Your task to perform on an android device: turn off airplane mode Image 0: 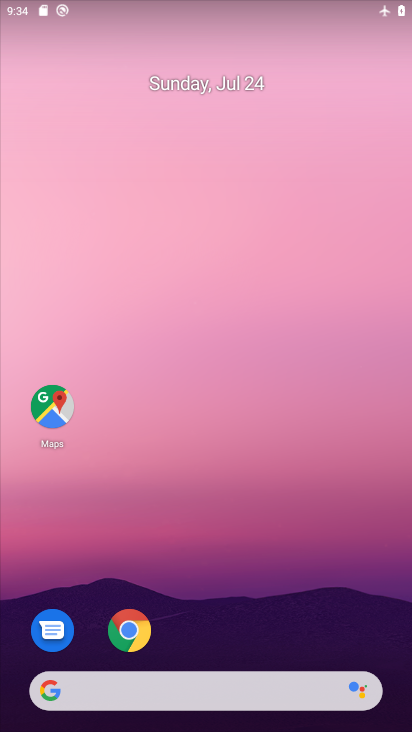
Step 0: click (241, 203)
Your task to perform on an android device: turn off airplane mode Image 1: 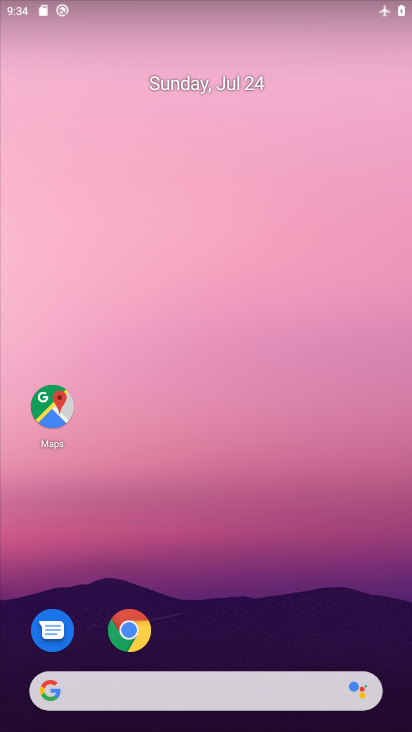
Step 1: drag from (196, 675) to (209, 208)
Your task to perform on an android device: turn off airplane mode Image 2: 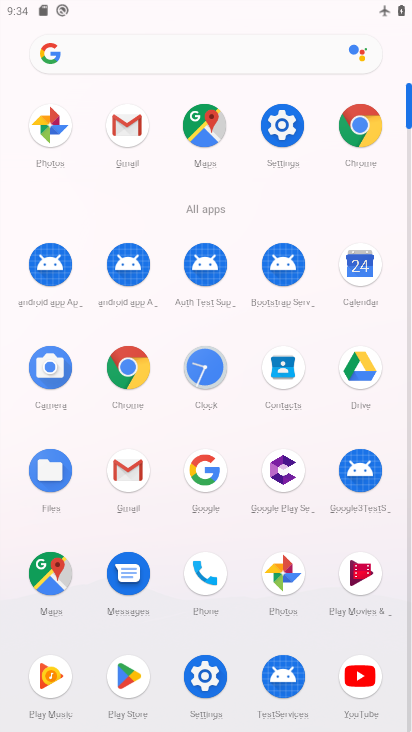
Step 2: click (292, 135)
Your task to perform on an android device: turn off airplane mode Image 3: 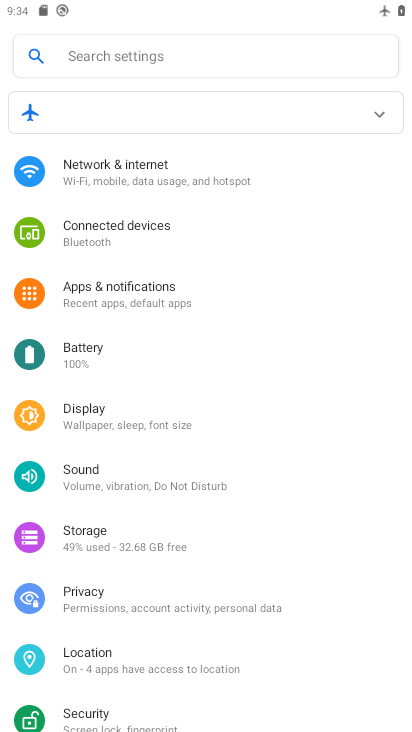
Step 3: click (114, 156)
Your task to perform on an android device: turn off airplane mode Image 4: 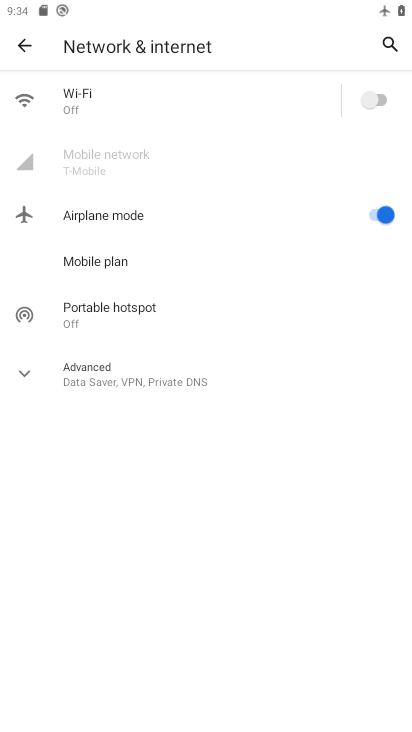
Step 4: click (375, 210)
Your task to perform on an android device: turn off airplane mode Image 5: 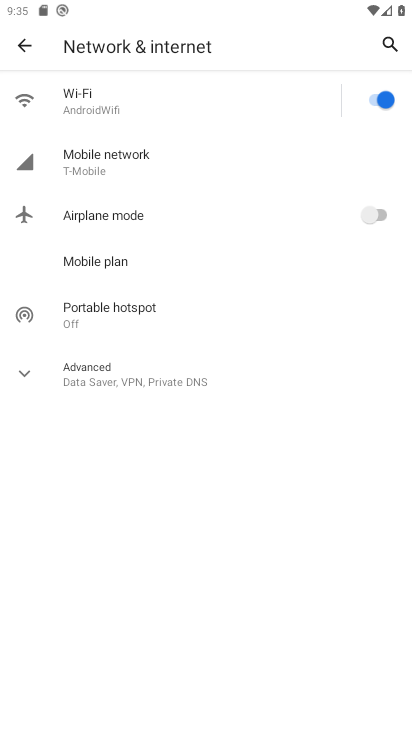
Step 5: task complete